Your task to perform on an android device: Go to CNN.com Image 0: 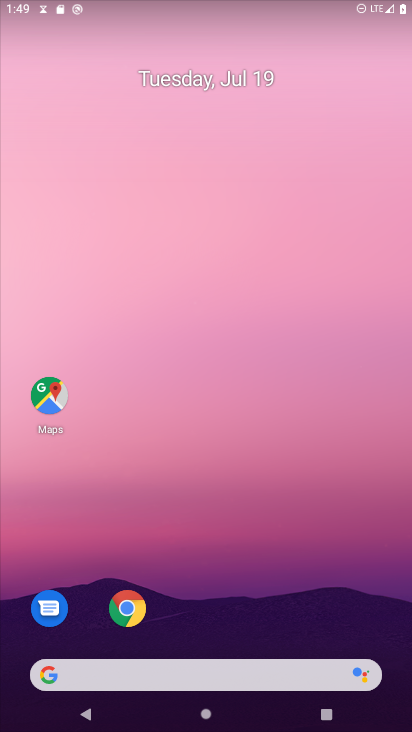
Step 0: drag from (292, 616) to (303, 65)
Your task to perform on an android device: Go to CNN.com Image 1: 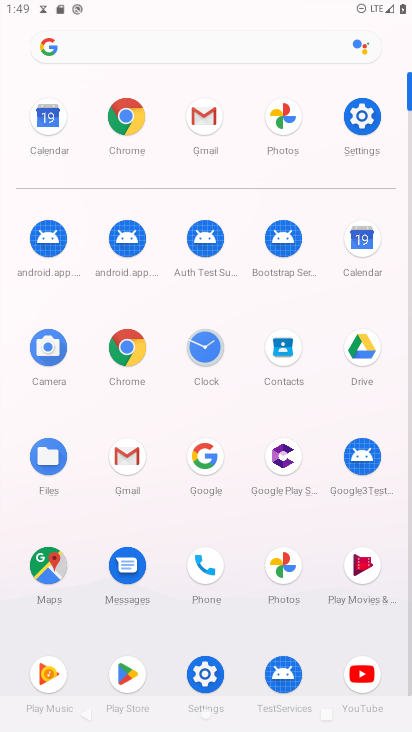
Step 1: click (125, 332)
Your task to perform on an android device: Go to CNN.com Image 2: 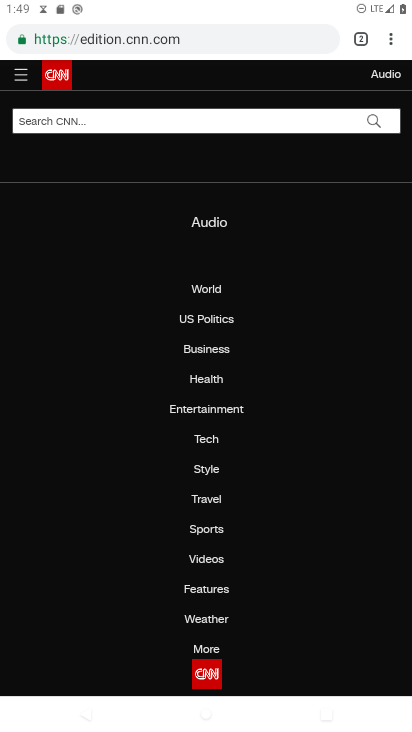
Step 2: click (232, 44)
Your task to perform on an android device: Go to CNN.com Image 3: 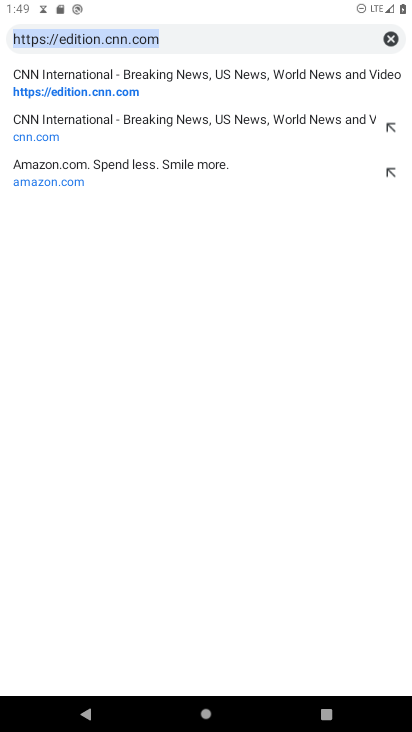
Step 3: click (182, 74)
Your task to perform on an android device: Go to CNN.com Image 4: 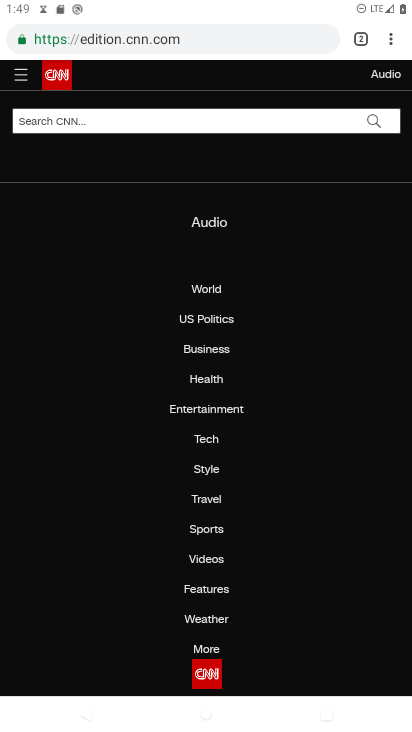
Step 4: task complete